Your task to perform on an android device: make emails show in primary in the gmail app Image 0: 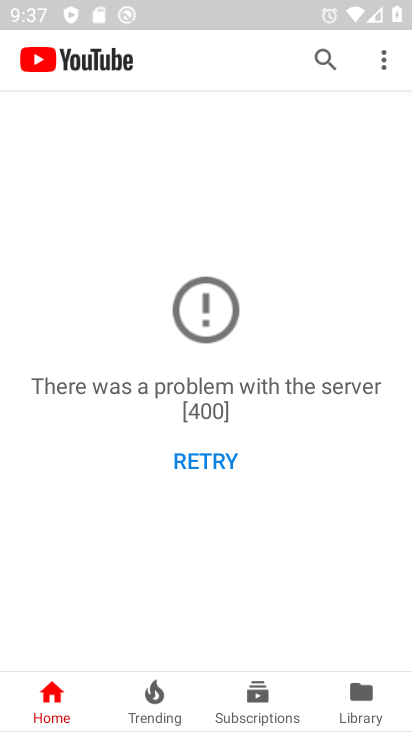
Step 0: press home button
Your task to perform on an android device: make emails show in primary in the gmail app Image 1: 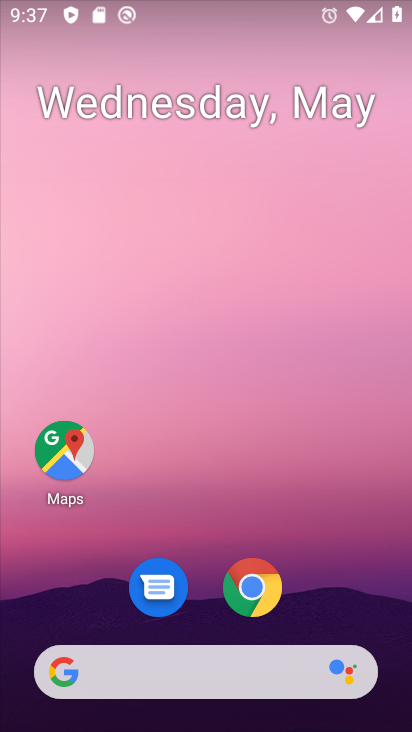
Step 1: drag from (74, 625) to (269, 118)
Your task to perform on an android device: make emails show in primary in the gmail app Image 2: 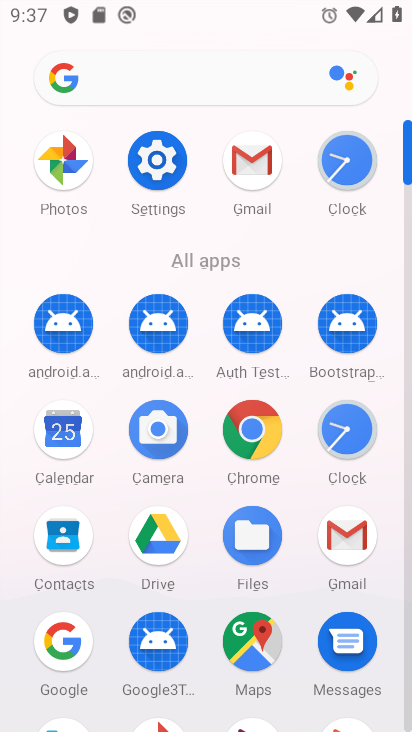
Step 2: click (344, 552)
Your task to perform on an android device: make emails show in primary in the gmail app Image 3: 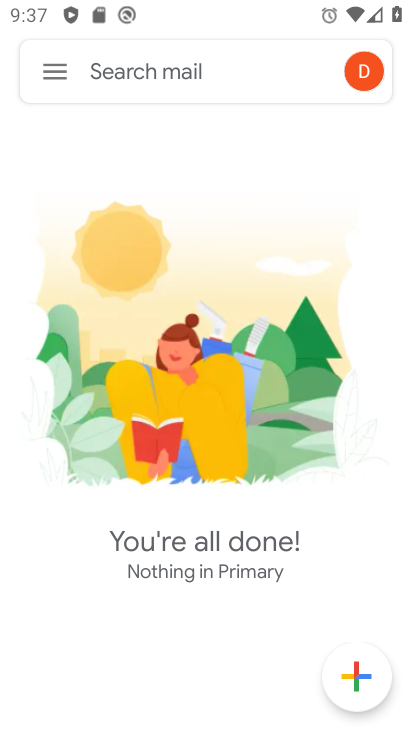
Step 3: task complete